Your task to perform on an android device: Is it going to rain this weekend? Image 0: 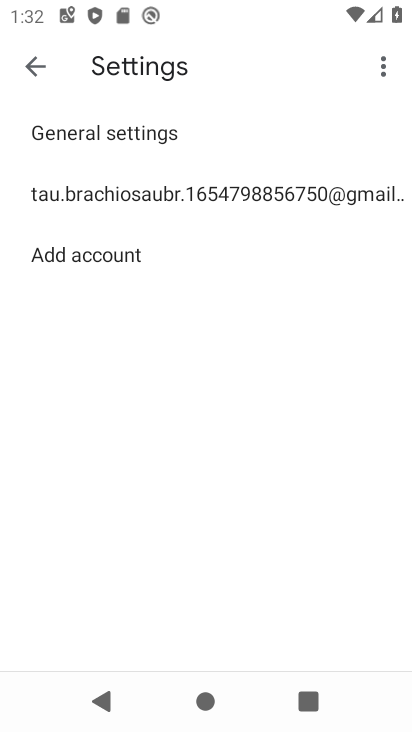
Step 0: press home button
Your task to perform on an android device: Is it going to rain this weekend? Image 1: 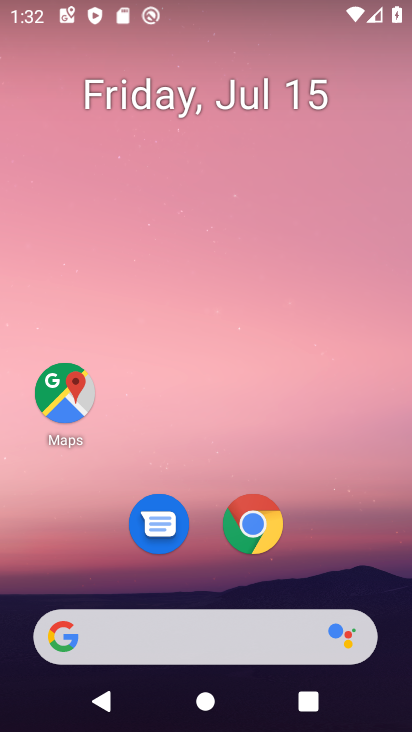
Step 1: drag from (234, 634) to (366, 93)
Your task to perform on an android device: Is it going to rain this weekend? Image 2: 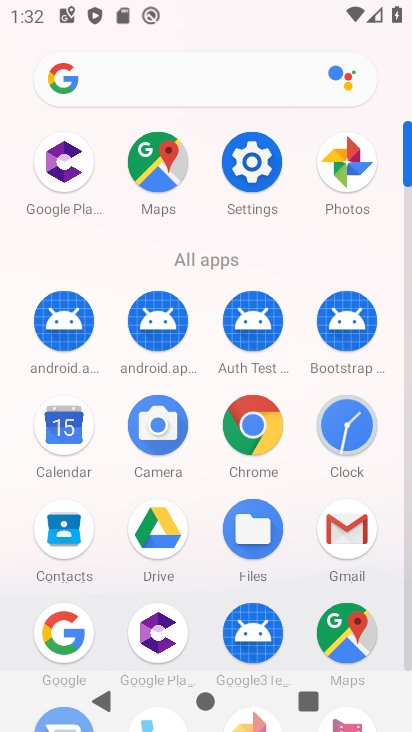
Step 2: drag from (204, 582) to (289, 263)
Your task to perform on an android device: Is it going to rain this weekend? Image 3: 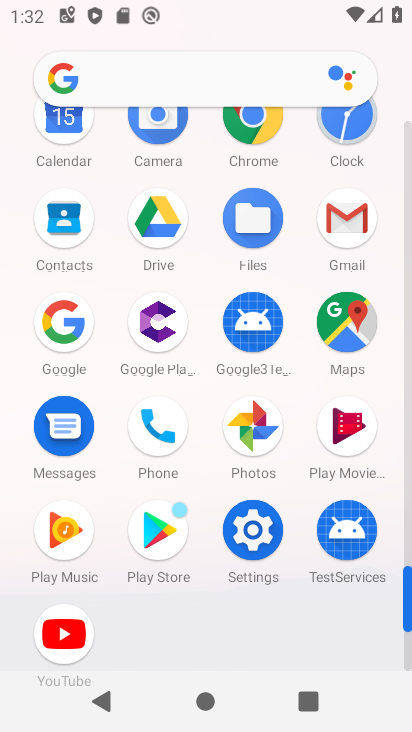
Step 3: click (67, 329)
Your task to perform on an android device: Is it going to rain this weekend? Image 4: 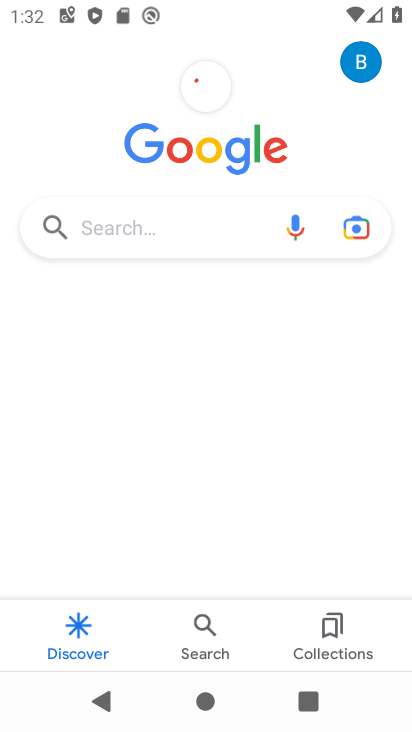
Step 4: click (202, 624)
Your task to perform on an android device: Is it going to rain this weekend? Image 5: 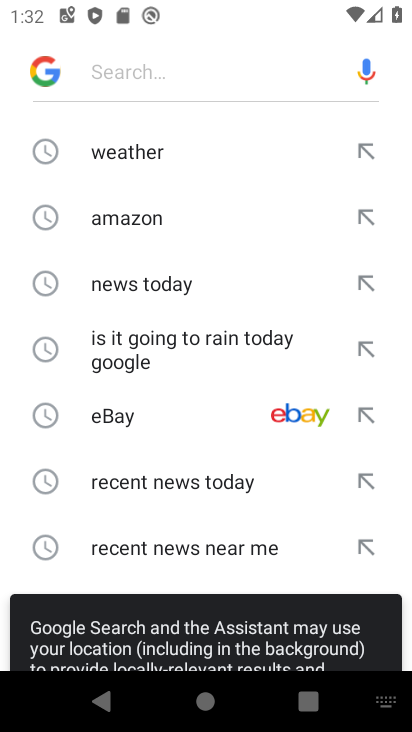
Step 5: click (127, 149)
Your task to perform on an android device: Is it going to rain this weekend? Image 6: 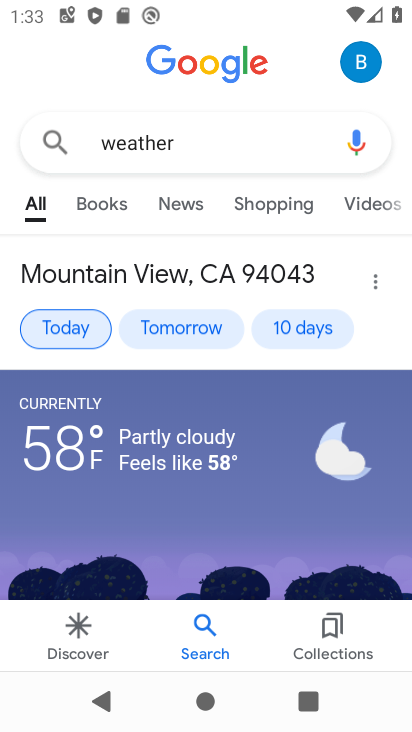
Step 6: click (295, 323)
Your task to perform on an android device: Is it going to rain this weekend? Image 7: 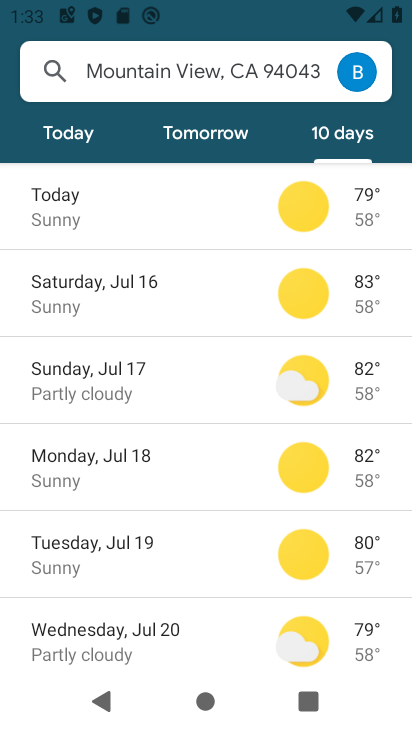
Step 7: click (143, 299)
Your task to perform on an android device: Is it going to rain this weekend? Image 8: 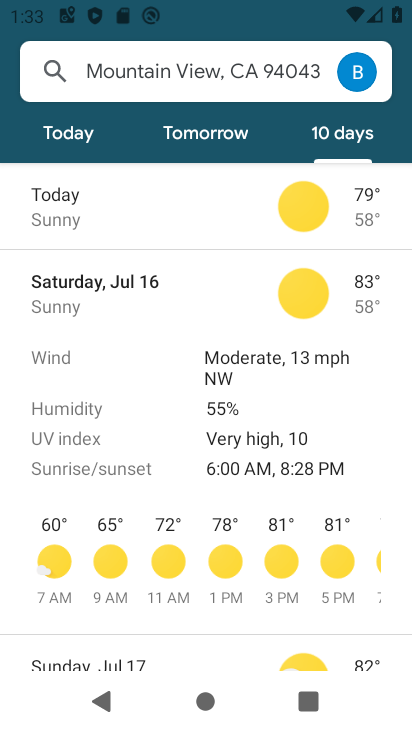
Step 8: task complete